Your task to perform on an android device: make emails show in primary in the gmail app Image 0: 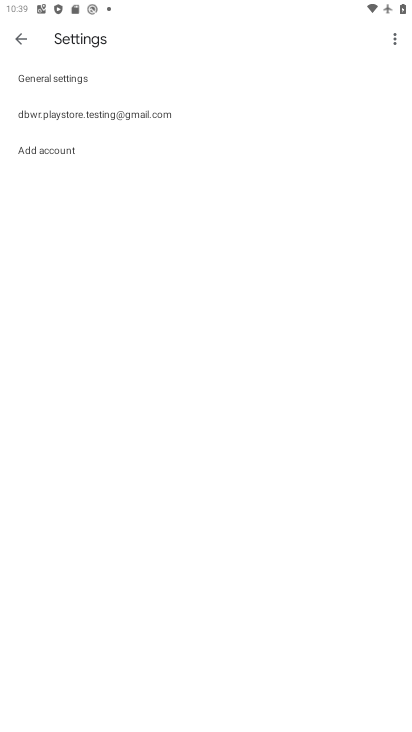
Step 0: press home button
Your task to perform on an android device: make emails show in primary in the gmail app Image 1: 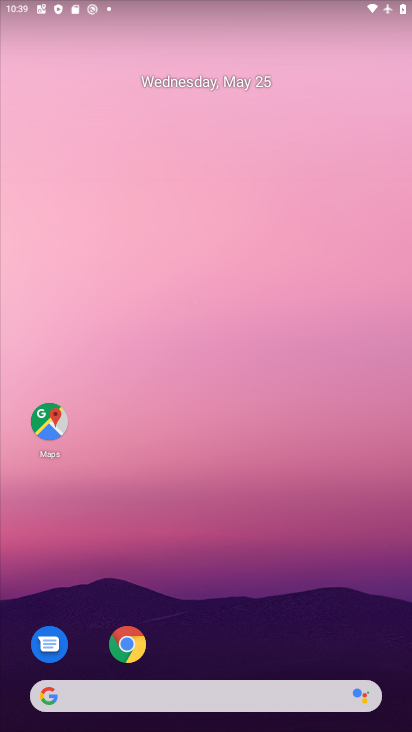
Step 1: drag from (261, 610) to (244, 107)
Your task to perform on an android device: make emails show in primary in the gmail app Image 2: 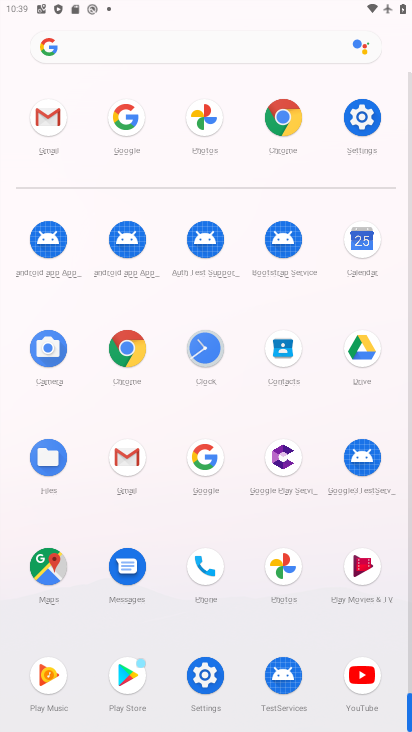
Step 2: click (131, 455)
Your task to perform on an android device: make emails show in primary in the gmail app Image 3: 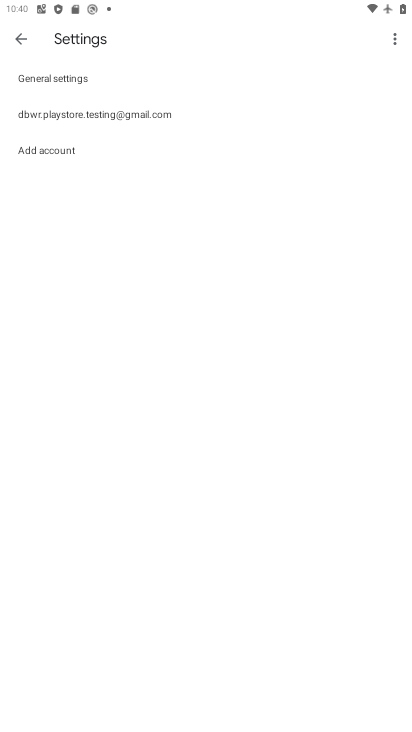
Step 3: click (95, 116)
Your task to perform on an android device: make emails show in primary in the gmail app Image 4: 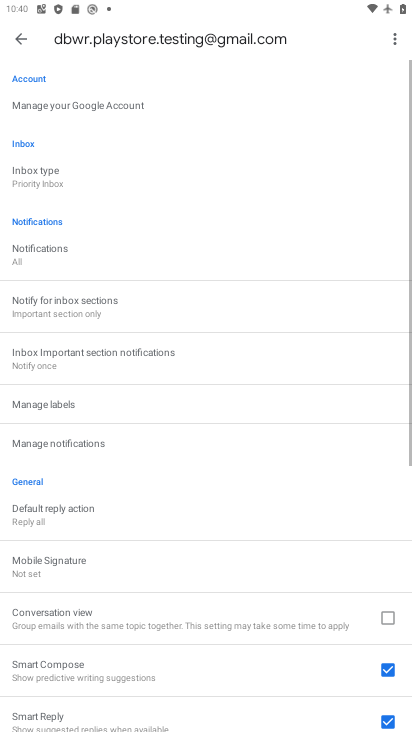
Step 4: click (69, 181)
Your task to perform on an android device: make emails show in primary in the gmail app Image 5: 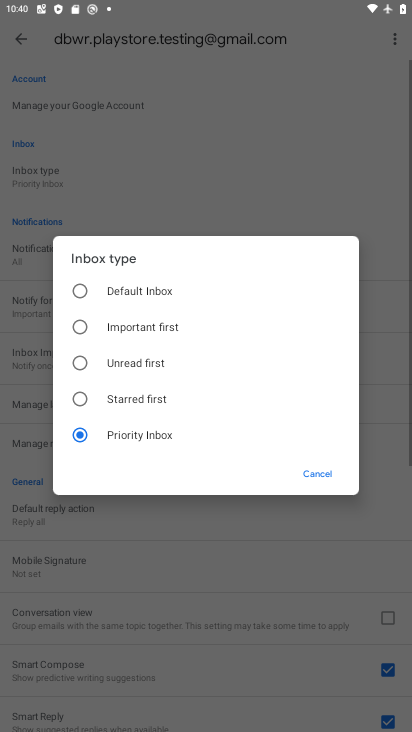
Step 5: click (99, 295)
Your task to perform on an android device: make emails show in primary in the gmail app Image 6: 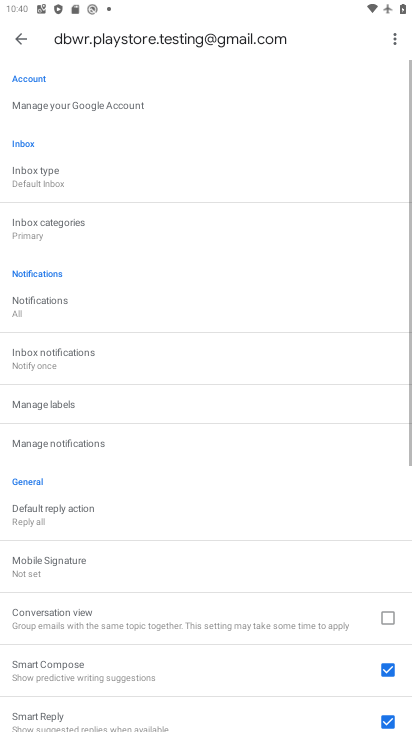
Step 6: click (60, 252)
Your task to perform on an android device: make emails show in primary in the gmail app Image 7: 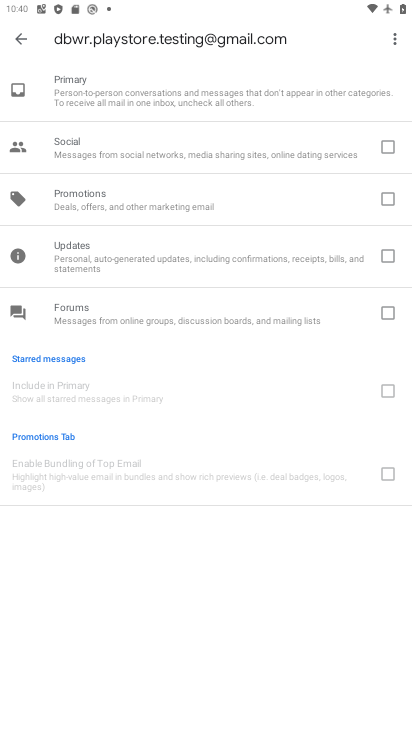
Step 7: task complete